Your task to perform on an android device: turn on priority inbox in the gmail app Image 0: 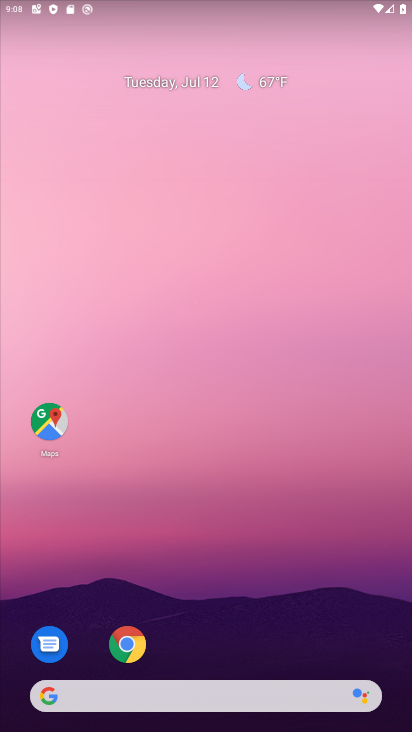
Step 0: drag from (181, 618) to (232, 241)
Your task to perform on an android device: turn on priority inbox in the gmail app Image 1: 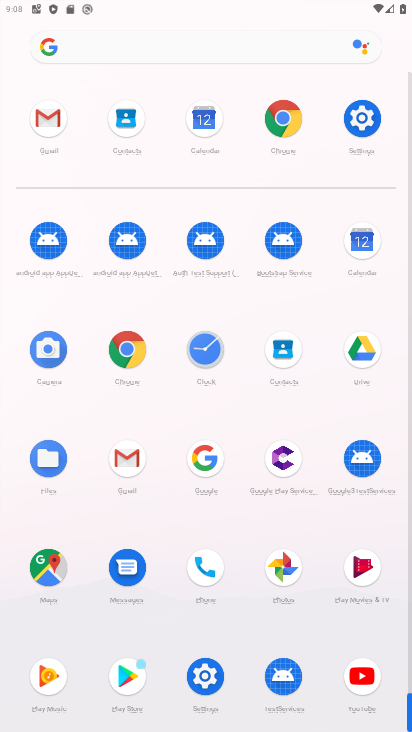
Step 1: click (165, 463)
Your task to perform on an android device: turn on priority inbox in the gmail app Image 2: 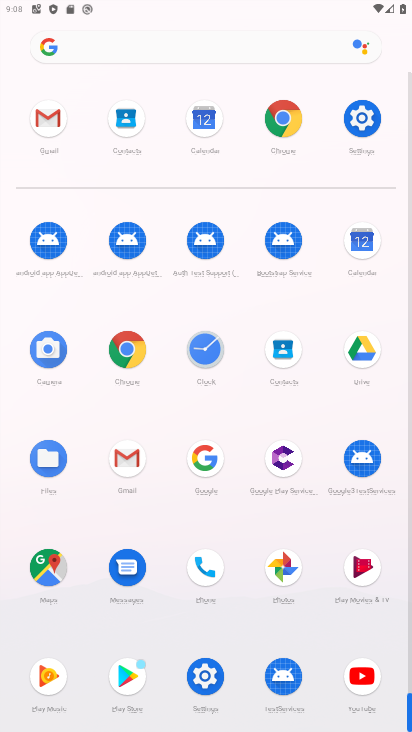
Step 2: click (144, 455)
Your task to perform on an android device: turn on priority inbox in the gmail app Image 3: 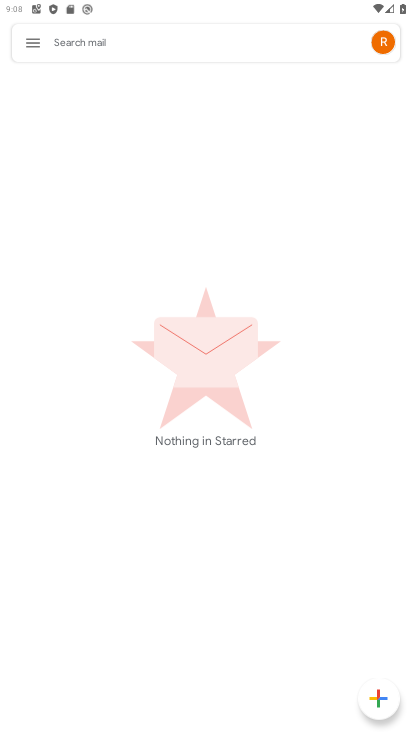
Step 3: click (44, 36)
Your task to perform on an android device: turn on priority inbox in the gmail app Image 4: 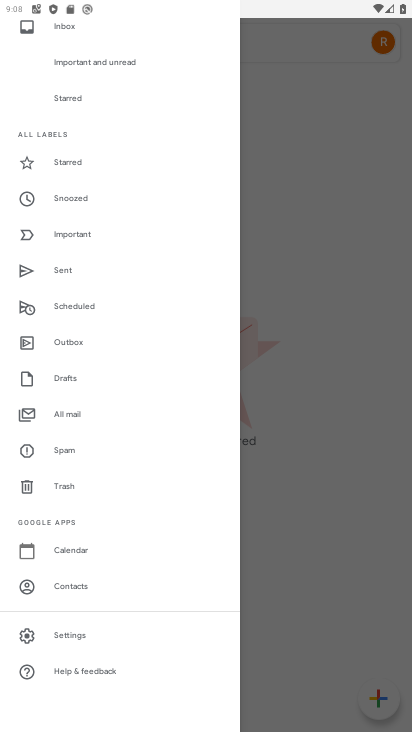
Step 4: click (90, 629)
Your task to perform on an android device: turn on priority inbox in the gmail app Image 5: 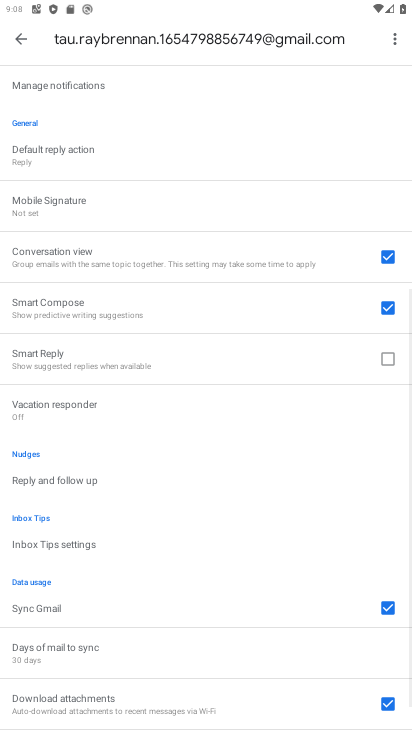
Step 5: click (51, 168)
Your task to perform on an android device: turn on priority inbox in the gmail app Image 6: 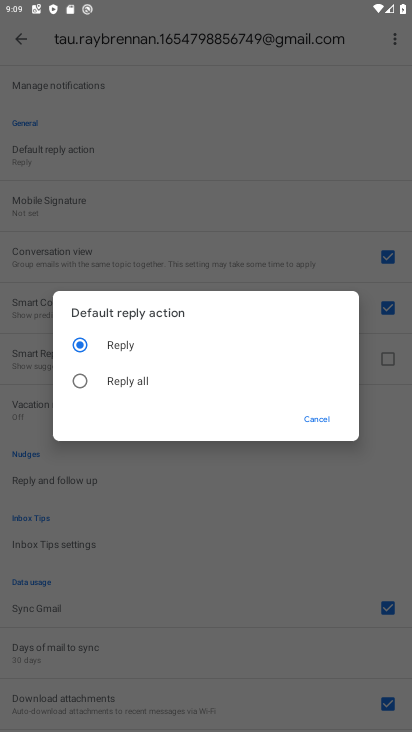
Step 6: click (171, 184)
Your task to perform on an android device: turn on priority inbox in the gmail app Image 7: 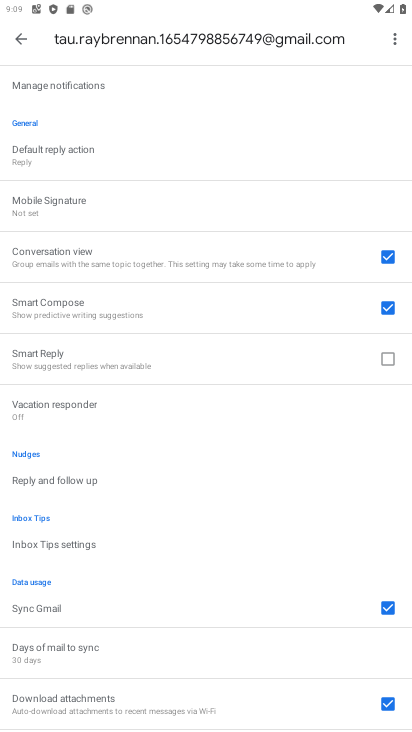
Step 7: drag from (147, 178) to (155, 731)
Your task to perform on an android device: turn on priority inbox in the gmail app Image 8: 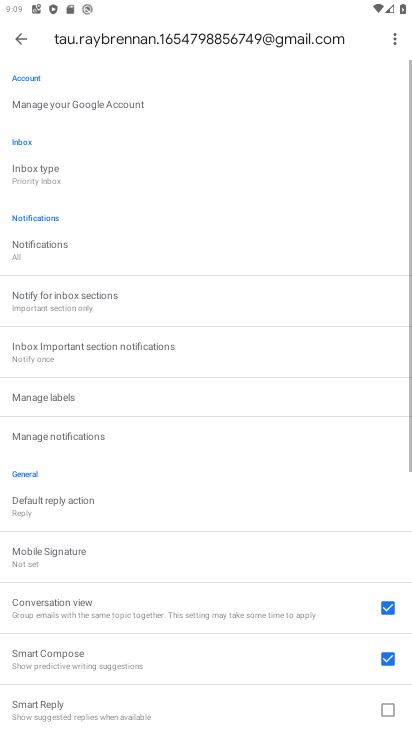
Step 8: drag from (112, 125) to (204, 561)
Your task to perform on an android device: turn on priority inbox in the gmail app Image 9: 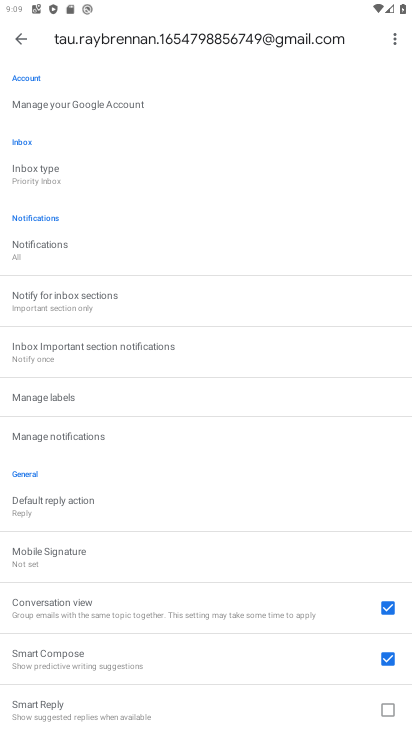
Step 9: click (76, 172)
Your task to perform on an android device: turn on priority inbox in the gmail app Image 10: 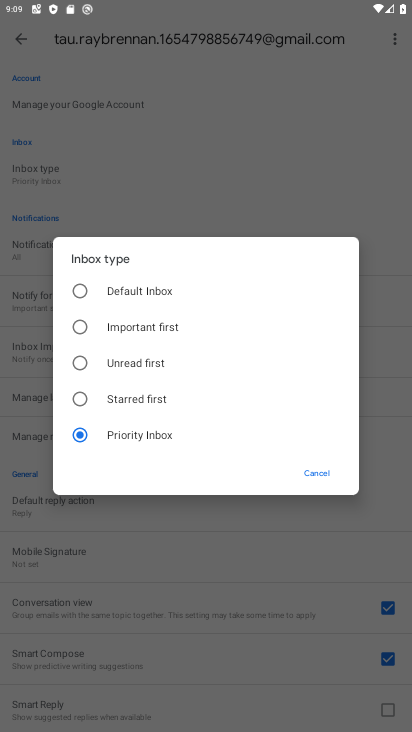
Step 10: task complete